Your task to perform on an android device: Open Youtube and go to "Your channel" Image 0: 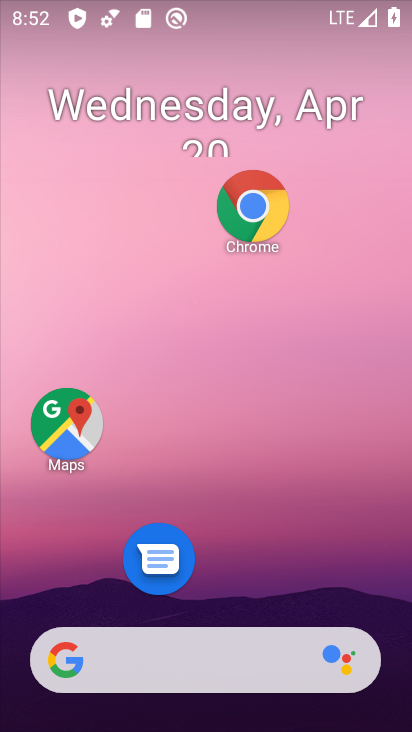
Step 0: drag from (284, 533) to (348, 78)
Your task to perform on an android device: Open Youtube and go to "Your channel" Image 1: 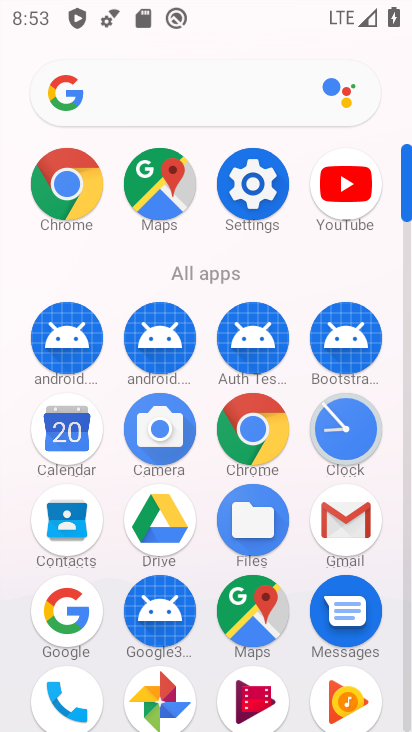
Step 1: click (342, 181)
Your task to perform on an android device: Open Youtube and go to "Your channel" Image 2: 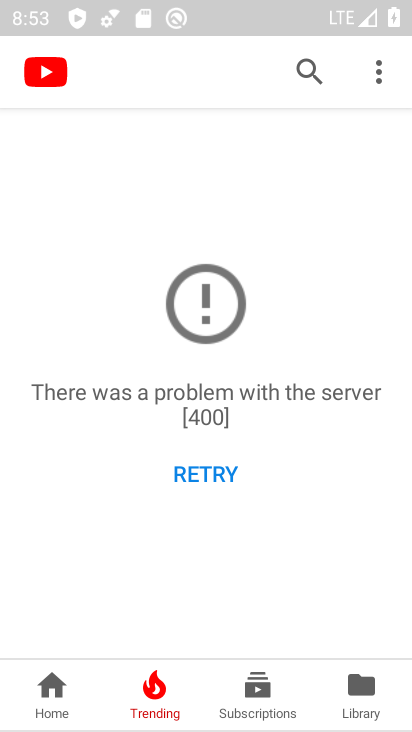
Step 2: click (353, 690)
Your task to perform on an android device: Open Youtube and go to "Your channel" Image 3: 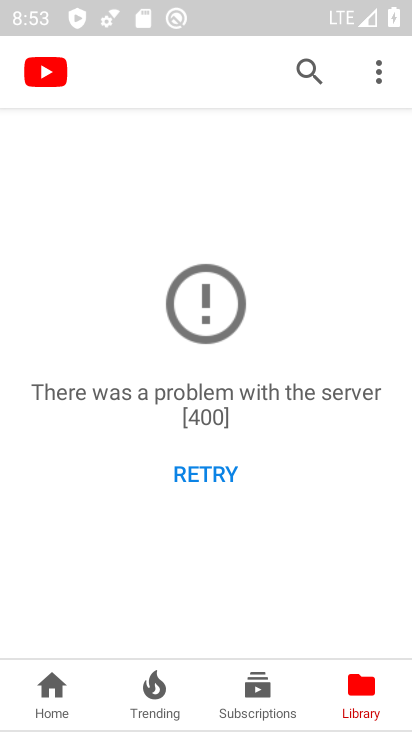
Step 3: click (366, 686)
Your task to perform on an android device: Open Youtube and go to "Your channel" Image 4: 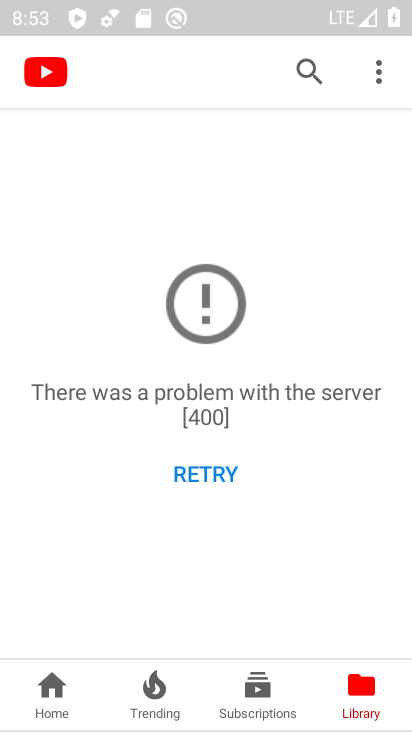
Step 4: task complete